Your task to perform on an android device: Add "razer kraken" to the cart on bestbuy Image 0: 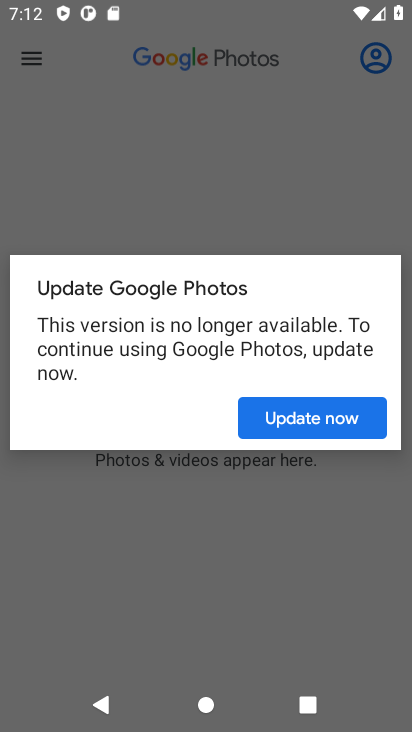
Step 0: press home button
Your task to perform on an android device: Add "razer kraken" to the cart on bestbuy Image 1: 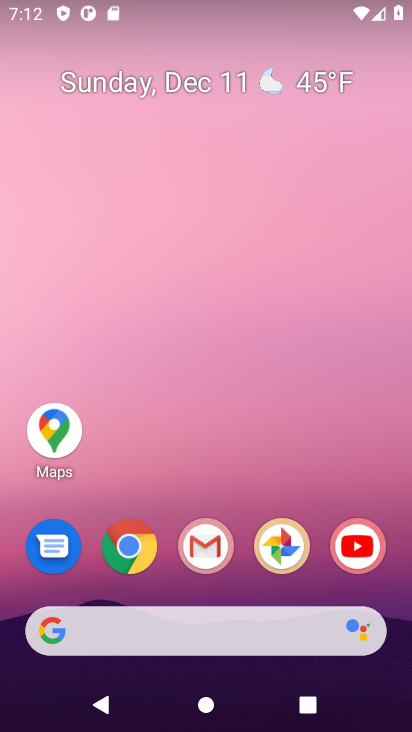
Step 1: click (137, 555)
Your task to perform on an android device: Add "razer kraken" to the cart on bestbuy Image 2: 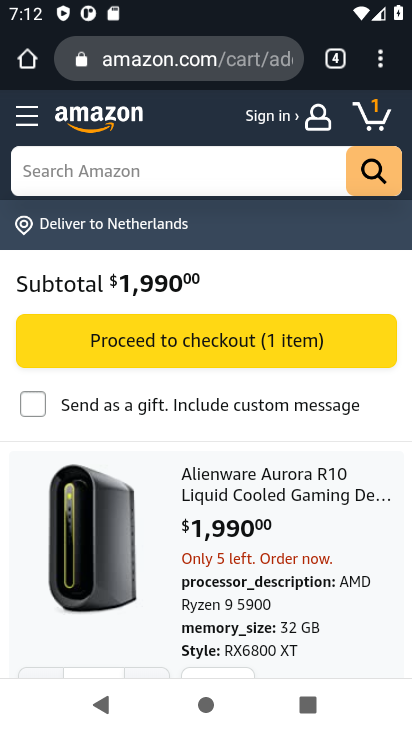
Step 2: click (160, 66)
Your task to perform on an android device: Add "razer kraken" to the cart on bestbuy Image 3: 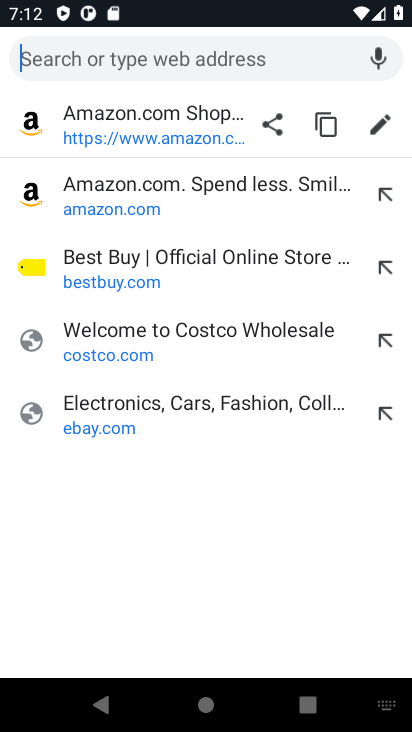
Step 3: click (78, 277)
Your task to perform on an android device: Add "razer kraken" to the cart on bestbuy Image 4: 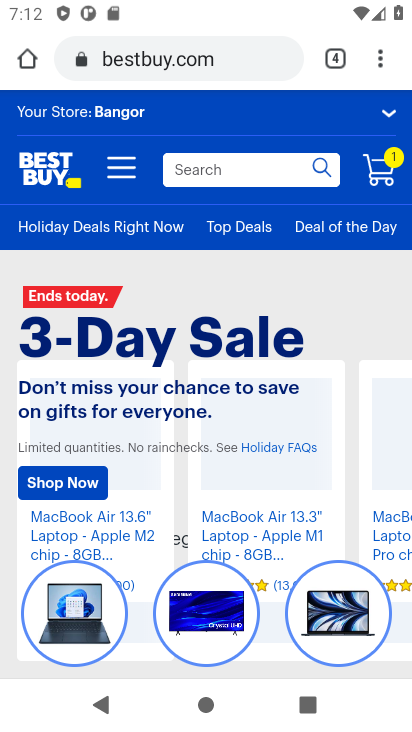
Step 4: click (201, 174)
Your task to perform on an android device: Add "razer kraken" to the cart on bestbuy Image 5: 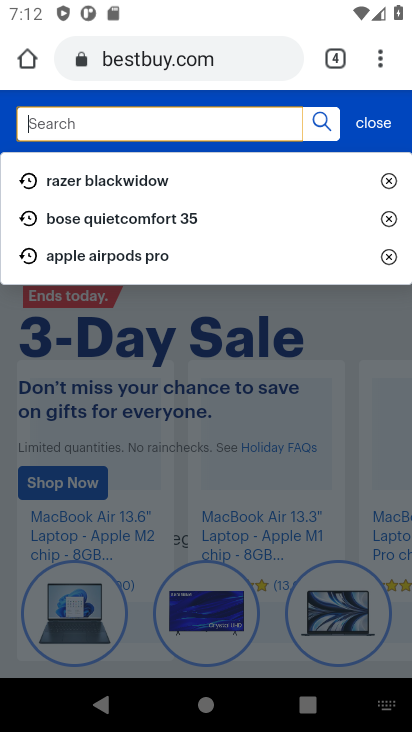
Step 5: type "razer kraken"
Your task to perform on an android device: Add "razer kraken" to the cart on bestbuy Image 6: 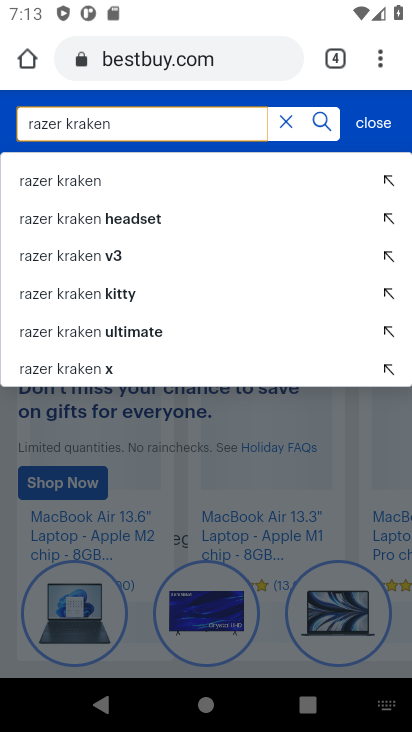
Step 6: click (87, 182)
Your task to perform on an android device: Add "razer kraken" to the cart on bestbuy Image 7: 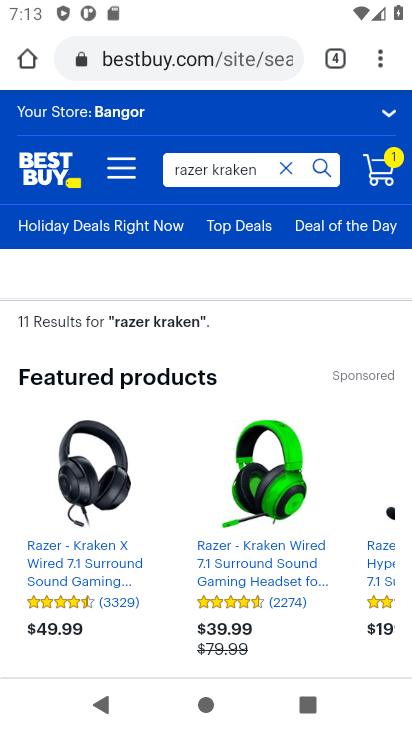
Step 7: drag from (165, 597) to (172, 234)
Your task to perform on an android device: Add "razer kraken" to the cart on bestbuy Image 8: 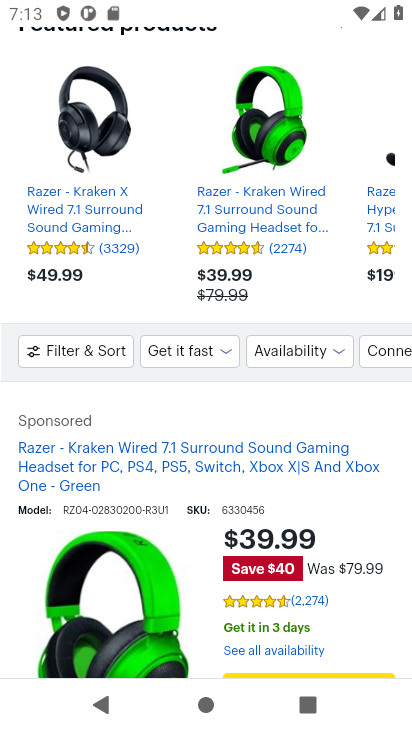
Step 8: drag from (194, 539) to (194, 223)
Your task to perform on an android device: Add "razer kraken" to the cart on bestbuy Image 9: 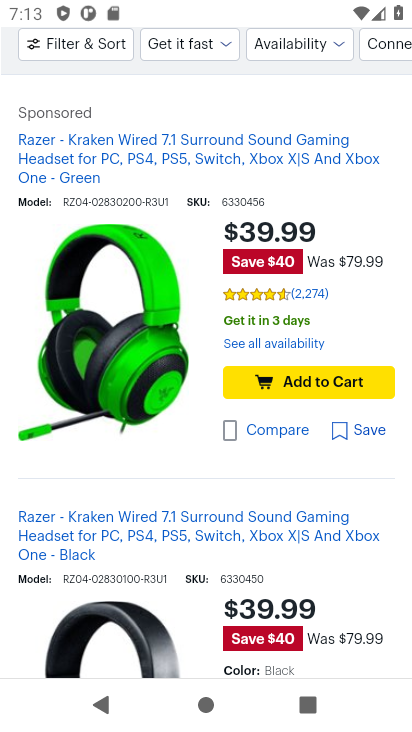
Step 9: click (304, 379)
Your task to perform on an android device: Add "razer kraken" to the cart on bestbuy Image 10: 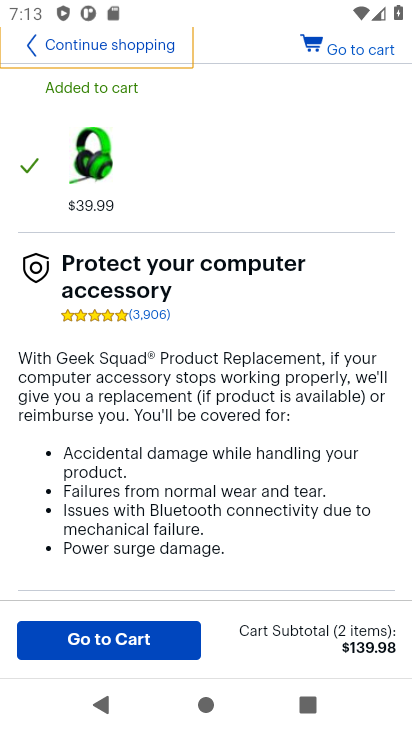
Step 10: task complete